Your task to perform on an android device: stop showing notifications on the lock screen Image 0: 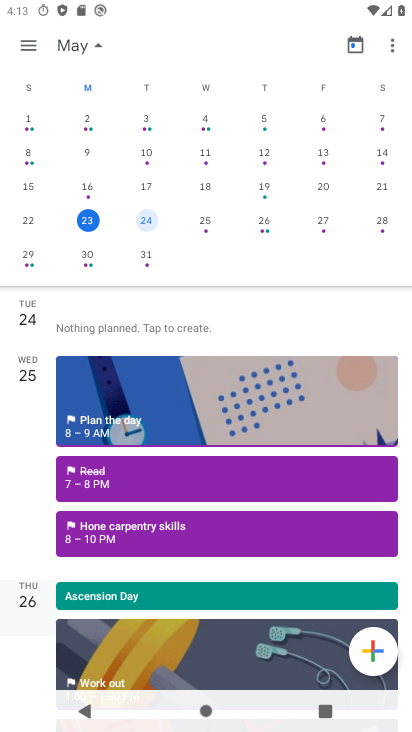
Step 0: drag from (217, 570) to (405, 225)
Your task to perform on an android device: stop showing notifications on the lock screen Image 1: 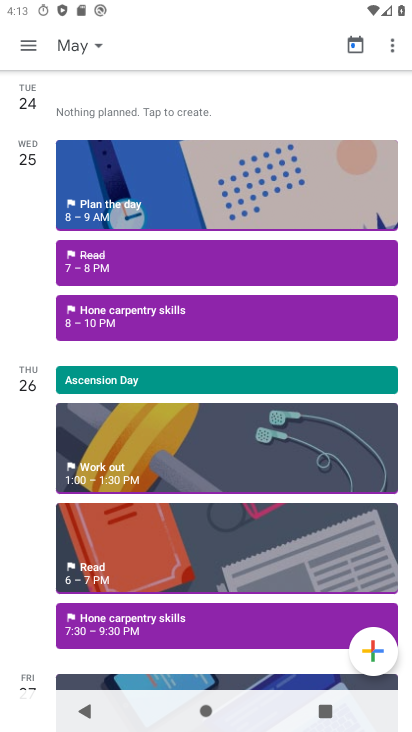
Step 1: press home button
Your task to perform on an android device: stop showing notifications on the lock screen Image 2: 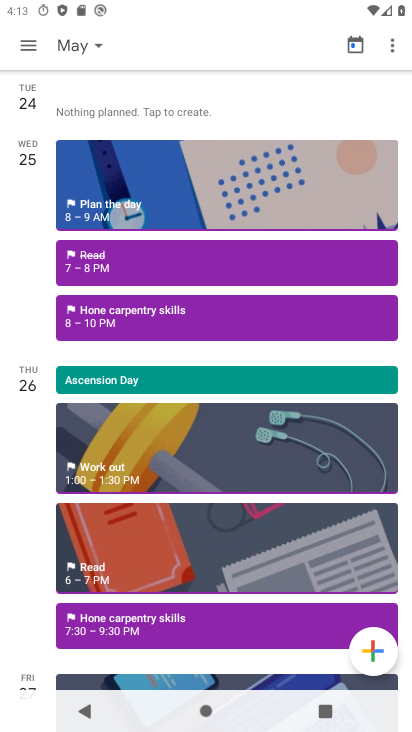
Step 2: click (397, 365)
Your task to perform on an android device: stop showing notifications on the lock screen Image 3: 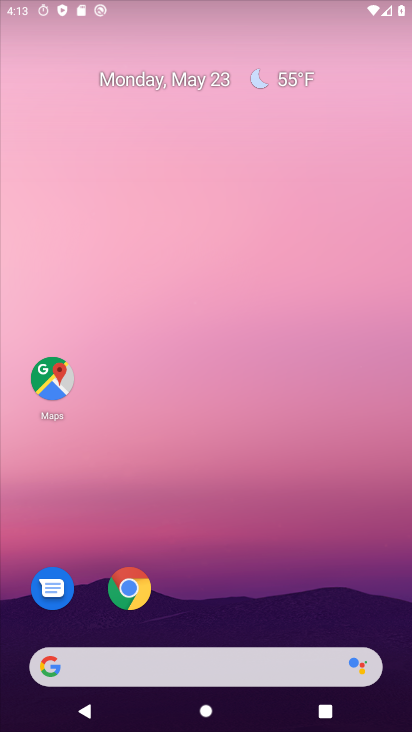
Step 3: drag from (241, 589) to (265, 62)
Your task to perform on an android device: stop showing notifications on the lock screen Image 4: 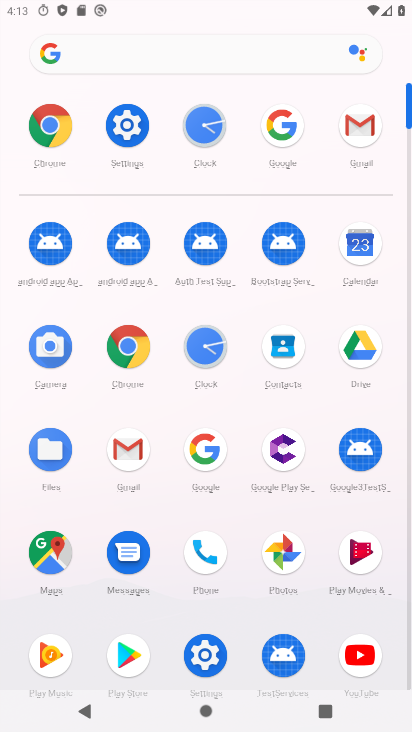
Step 4: click (128, 123)
Your task to perform on an android device: stop showing notifications on the lock screen Image 5: 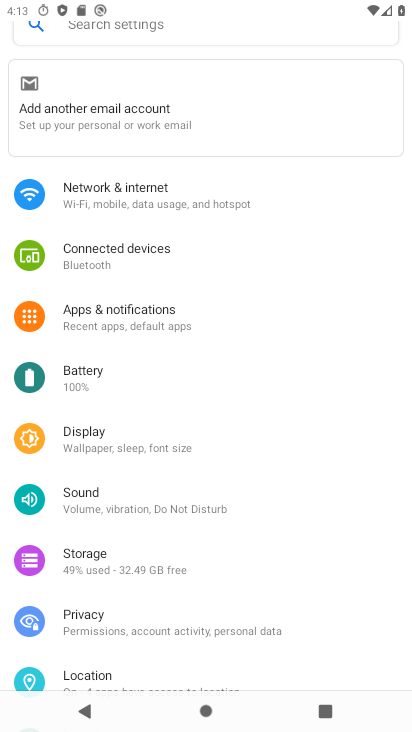
Step 5: click (123, 316)
Your task to perform on an android device: stop showing notifications on the lock screen Image 6: 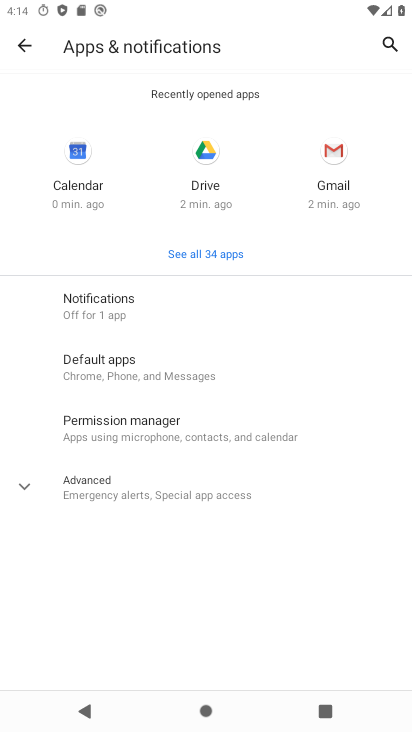
Step 6: click (131, 305)
Your task to perform on an android device: stop showing notifications on the lock screen Image 7: 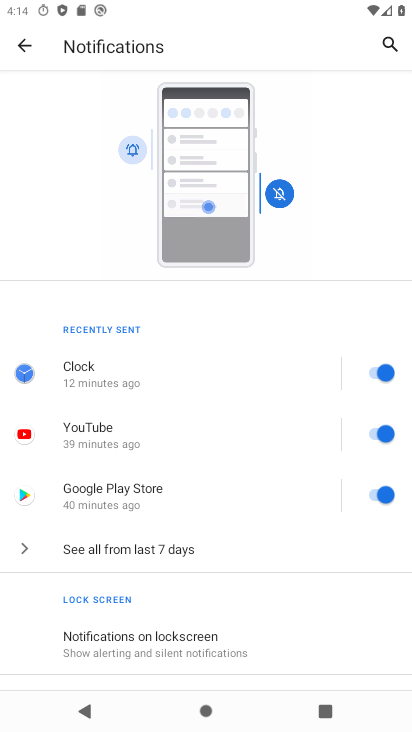
Step 7: click (187, 641)
Your task to perform on an android device: stop showing notifications on the lock screen Image 8: 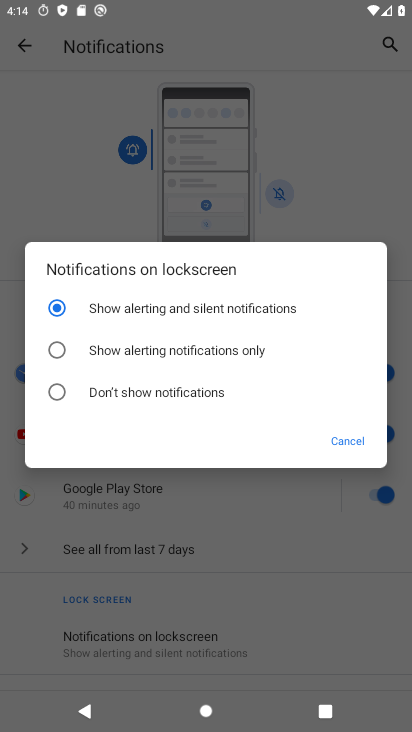
Step 8: click (91, 411)
Your task to perform on an android device: stop showing notifications on the lock screen Image 9: 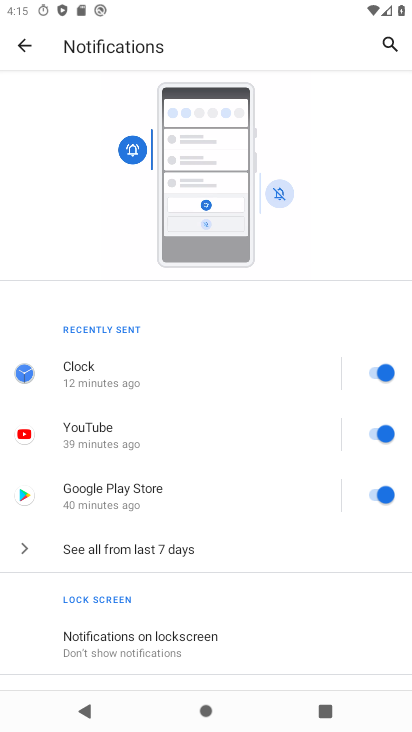
Step 9: task complete